Your task to perform on an android device: Open my contact list Image 0: 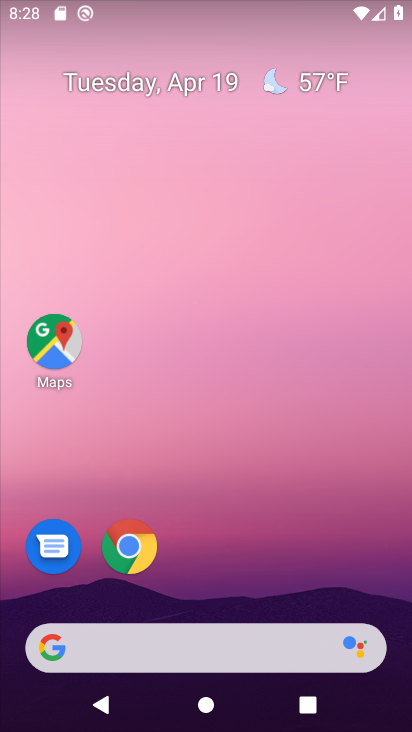
Step 0: drag from (259, 12) to (313, 0)
Your task to perform on an android device: Open my contact list Image 1: 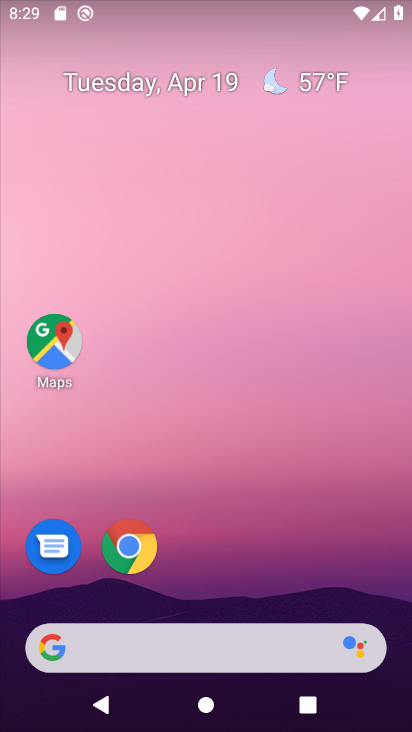
Step 1: drag from (204, 576) to (262, 17)
Your task to perform on an android device: Open my contact list Image 2: 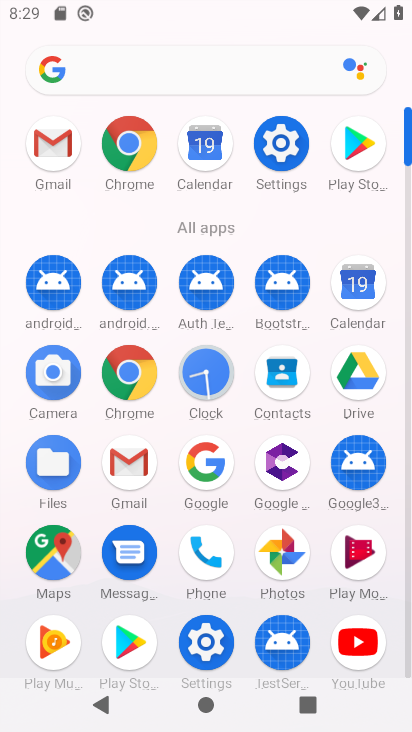
Step 2: click (280, 373)
Your task to perform on an android device: Open my contact list Image 3: 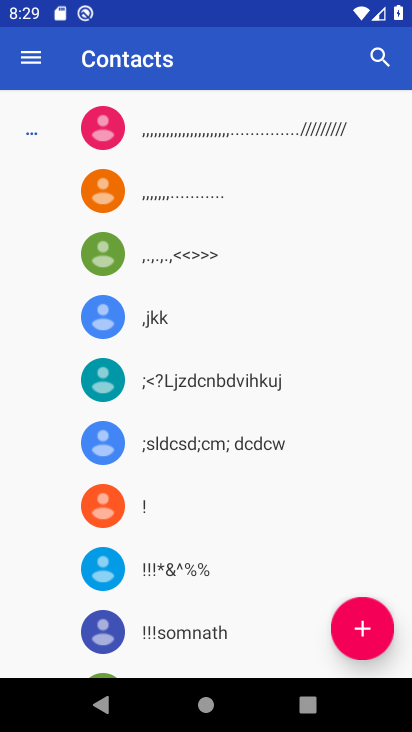
Step 3: task complete